Your task to perform on an android device: make emails show in primary in the gmail app Image 0: 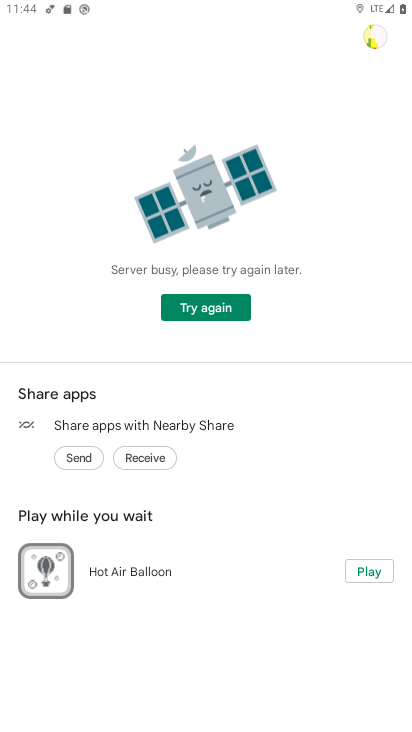
Step 0: press home button
Your task to perform on an android device: make emails show in primary in the gmail app Image 1: 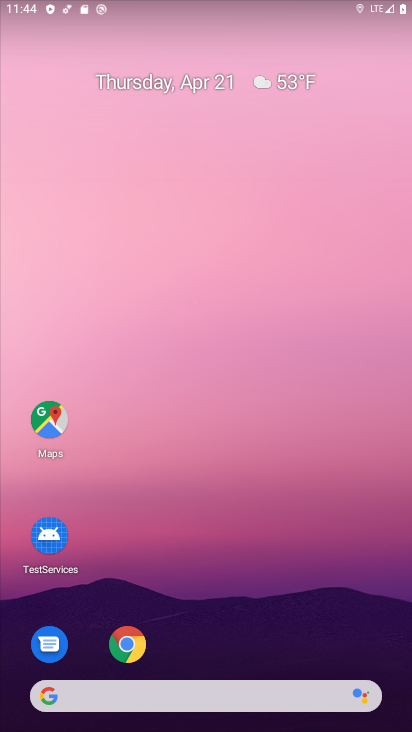
Step 1: drag from (318, 609) to (259, 154)
Your task to perform on an android device: make emails show in primary in the gmail app Image 2: 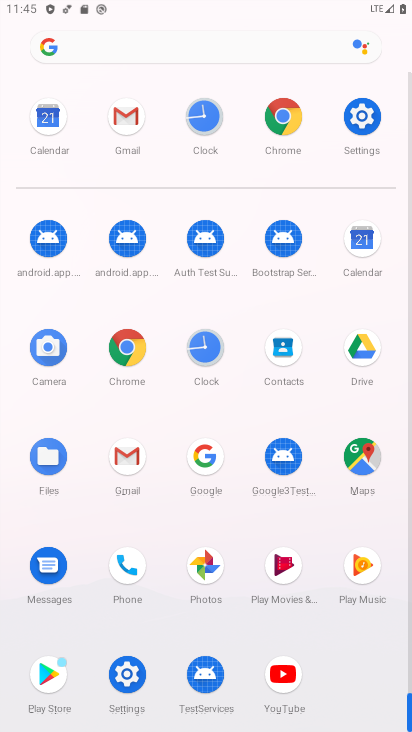
Step 2: click (108, 468)
Your task to perform on an android device: make emails show in primary in the gmail app Image 3: 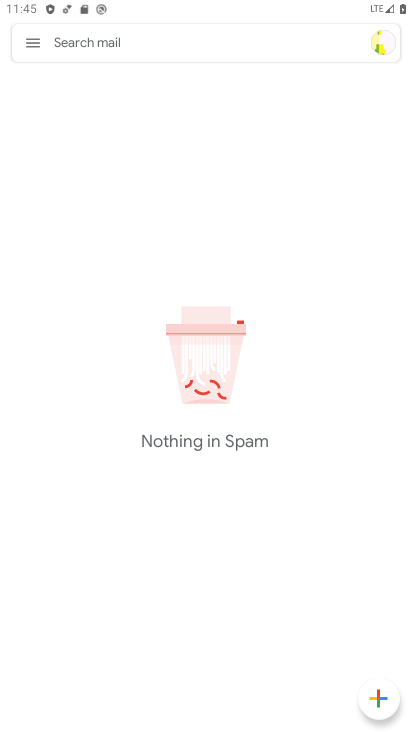
Step 3: click (36, 46)
Your task to perform on an android device: make emails show in primary in the gmail app Image 4: 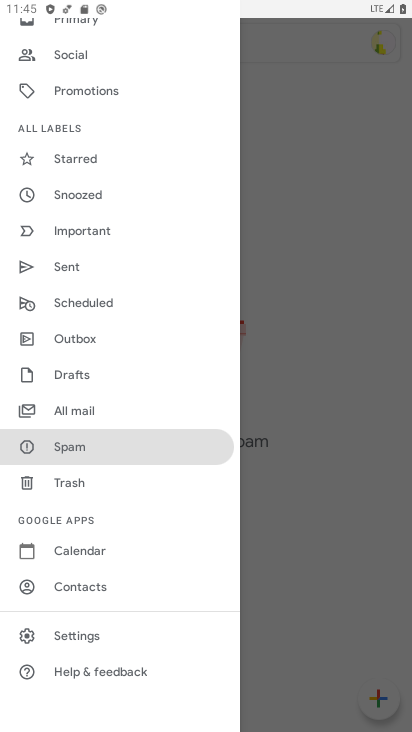
Step 4: click (82, 636)
Your task to perform on an android device: make emails show in primary in the gmail app Image 5: 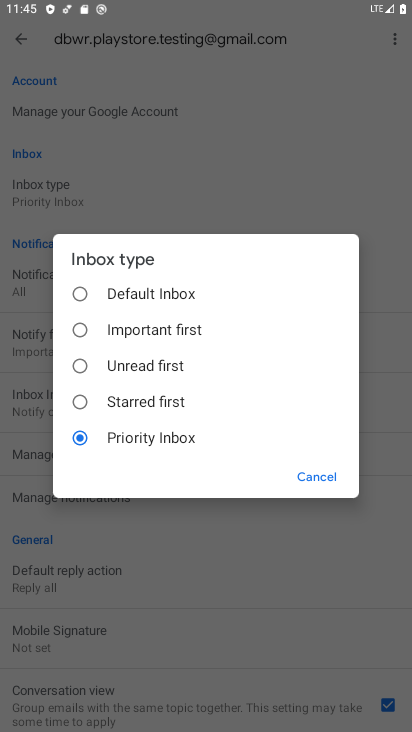
Step 5: click (323, 475)
Your task to perform on an android device: make emails show in primary in the gmail app Image 6: 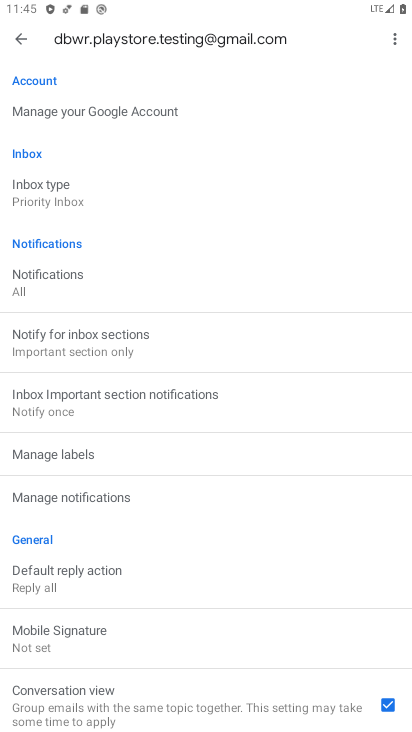
Step 6: drag from (160, 529) to (229, 224)
Your task to perform on an android device: make emails show in primary in the gmail app Image 7: 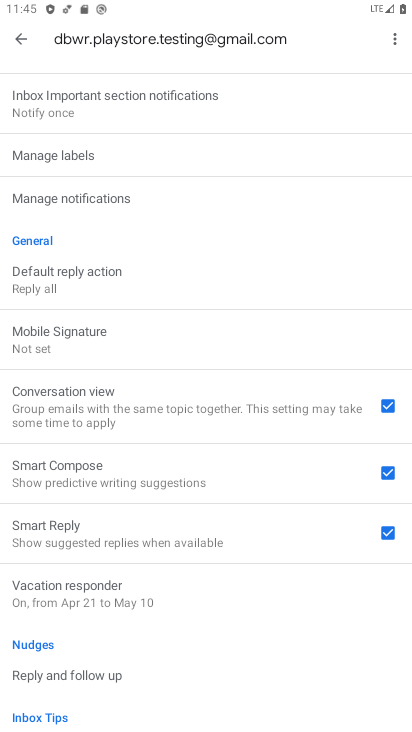
Step 7: drag from (132, 128) to (170, 522)
Your task to perform on an android device: make emails show in primary in the gmail app Image 8: 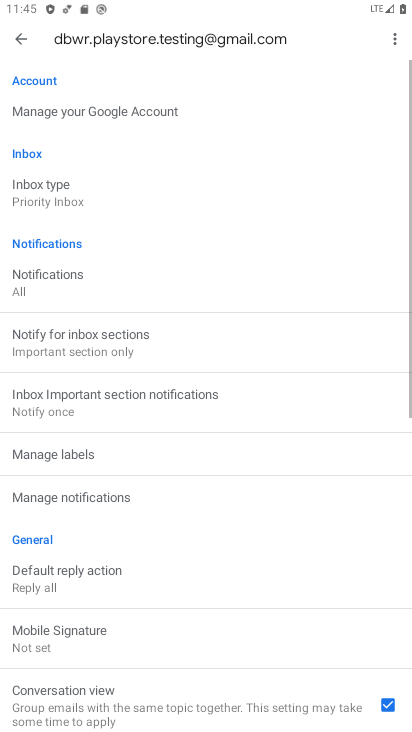
Step 8: click (61, 196)
Your task to perform on an android device: make emails show in primary in the gmail app Image 9: 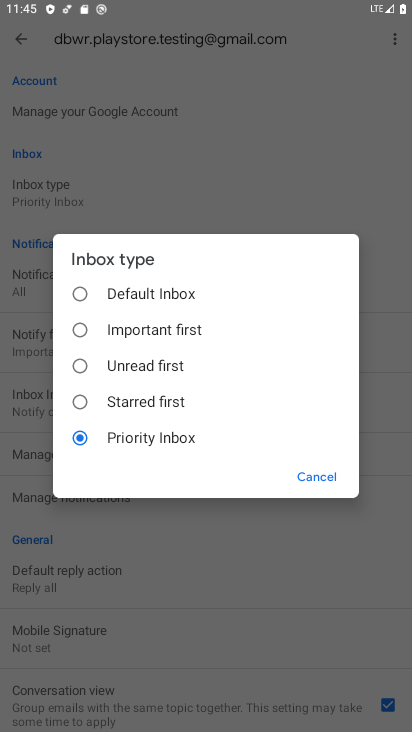
Step 9: click (169, 291)
Your task to perform on an android device: make emails show in primary in the gmail app Image 10: 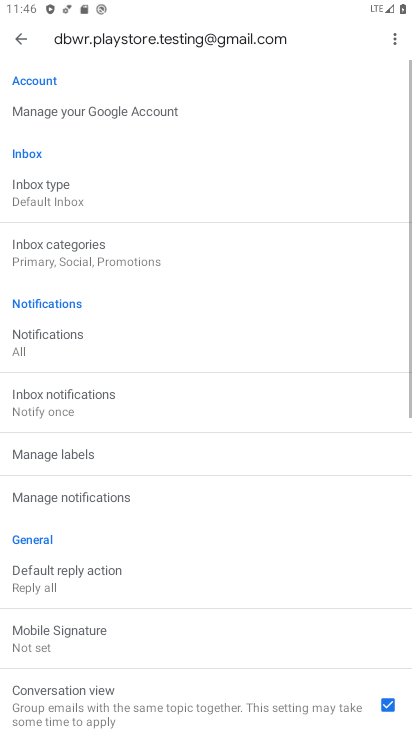
Step 10: click (121, 265)
Your task to perform on an android device: make emails show in primary in the gmail app Image 11: 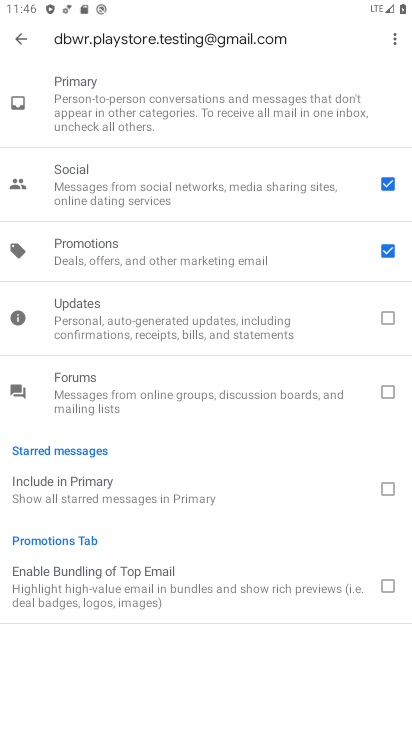
Step 11: task complete